Your task to perform on an android device: Open Google Chrome Image 0: 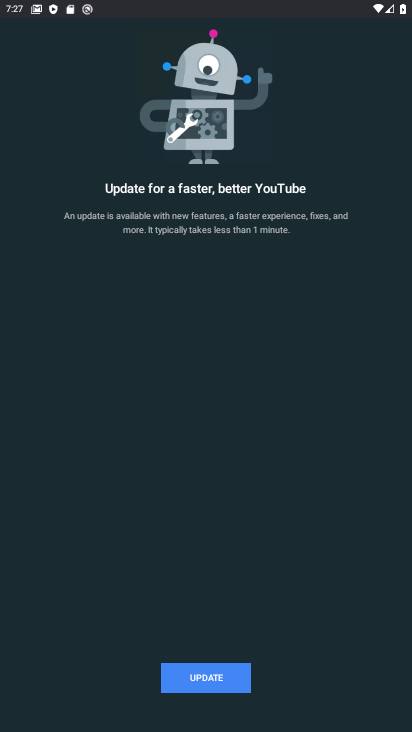
Step 0: press home button
Your task to perform on an android device: Open Google Chrome Image 1: 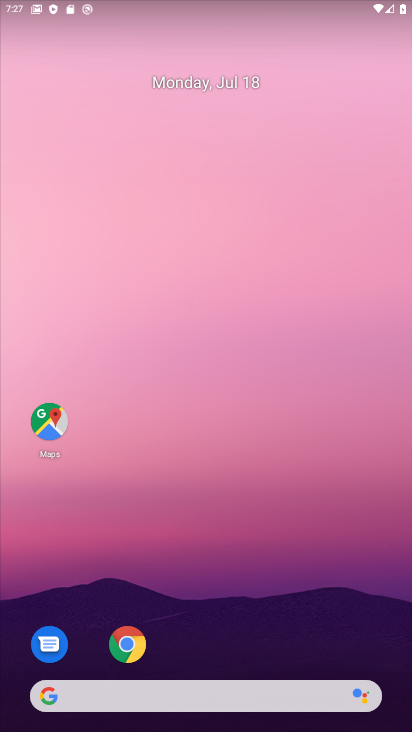
Step 1: click (139, 640)
Your task to perform on an android device: Open Google Chrome Image 2: 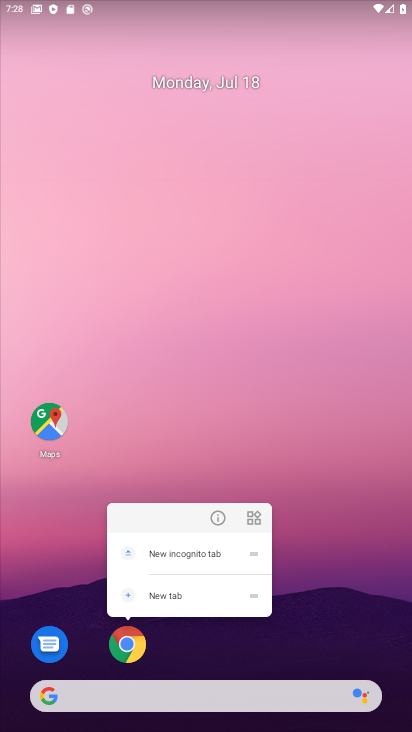
Step 2: click (127, 647)
Your task to perform on an android device: Open Google Chrome Image 3: 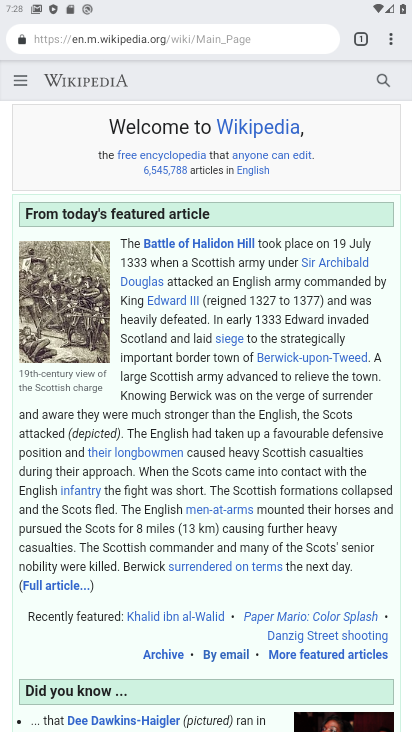
Step 3: task complete